Your task to perform on an android device: move an email to a new category in the gmail app Image 0: 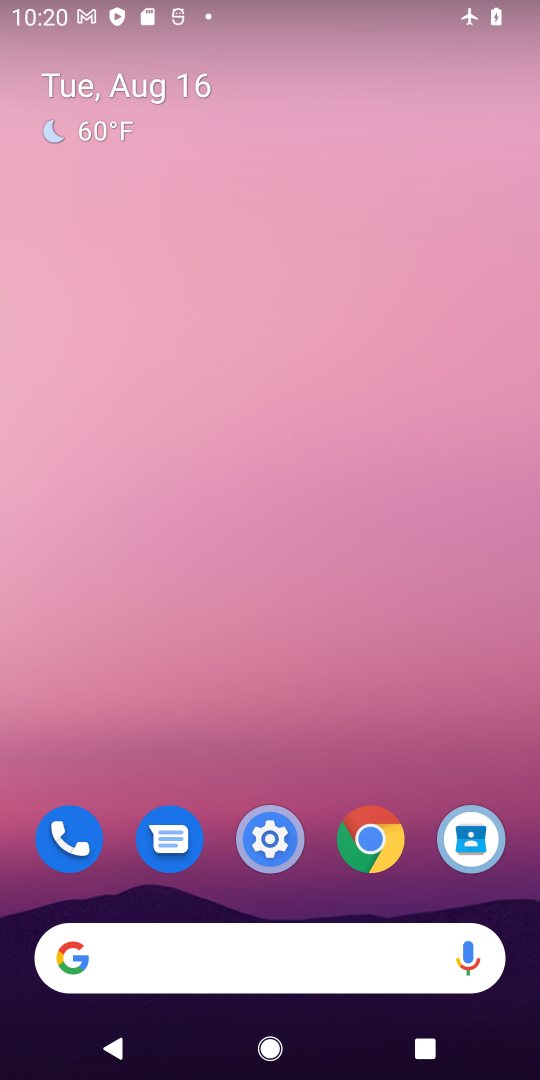
Step 0: drag from (215, 858) to (226, 237)
Your task to perform on an android device: move an email to a new category in the gmail app Image 1: 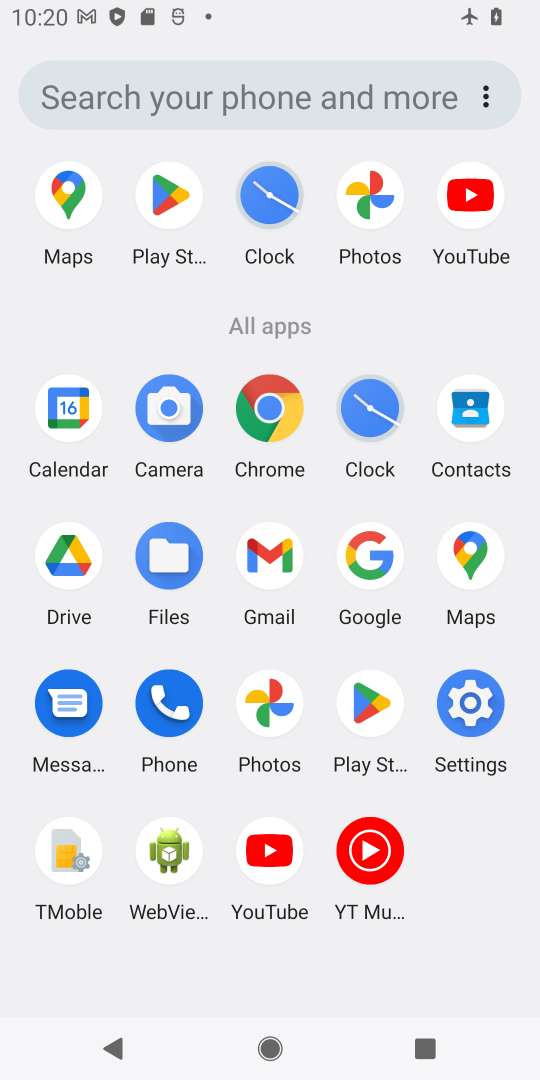
Step 1: click (271, 572)
Your task to perform on an android device: move an email to a new category in the gmail app Image 2: 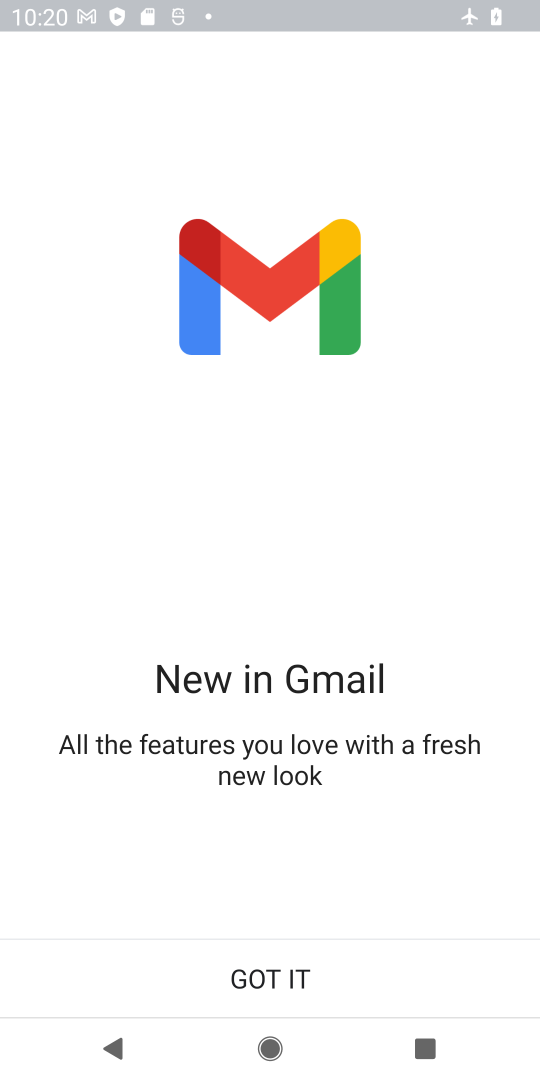
Step 2: click (340, 979)
Your task to perform on an android device: move an email to a new category in the gmail app Image 3: 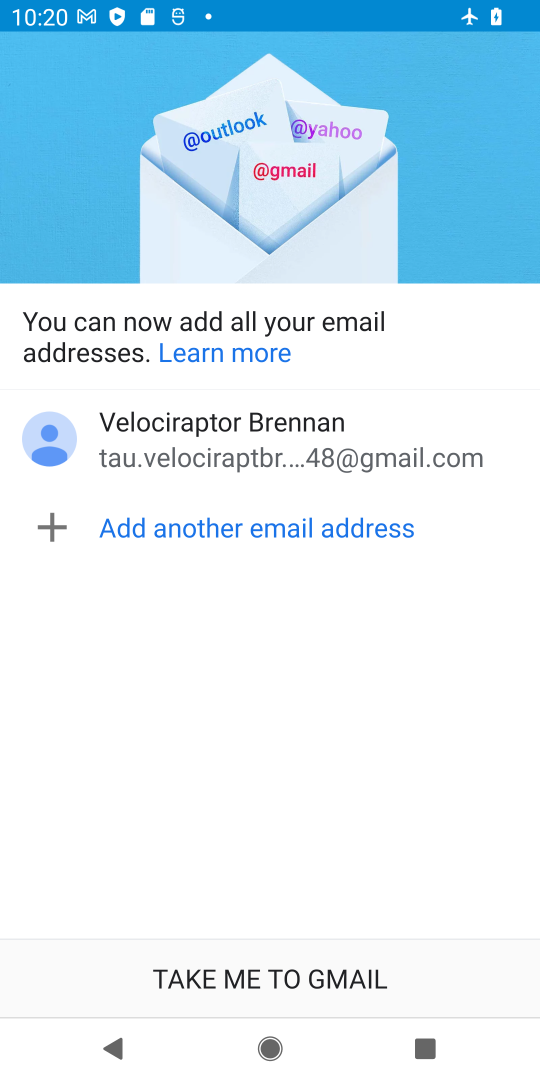
Step 3: click (344, 948)
Your task to perform on an android device: move an email to a new category in the gmail app Image 4: 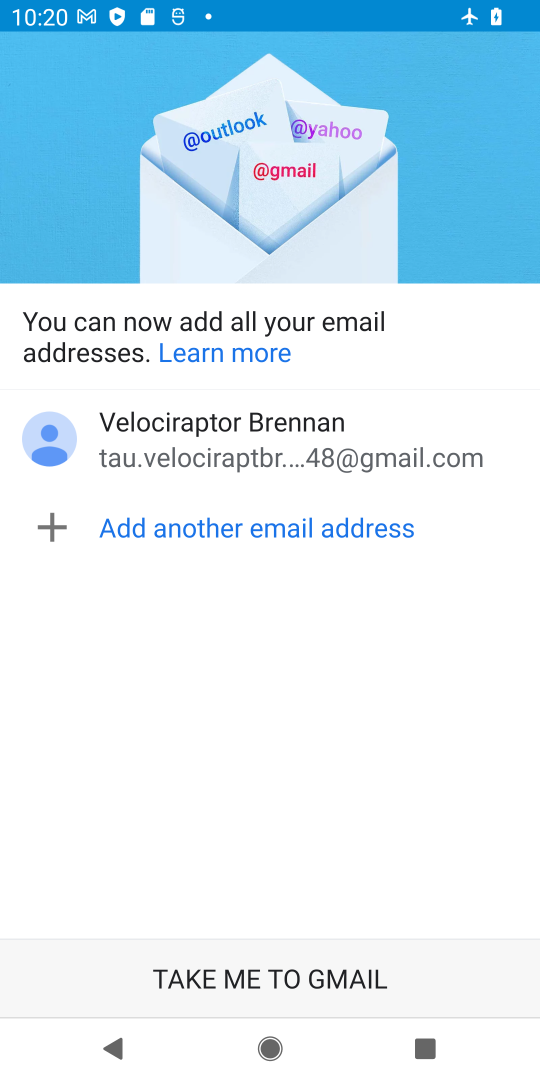
Step 4: click (312, 970)
Your task to perform on an android device: move an email to a new category in the gmail app Image 5: 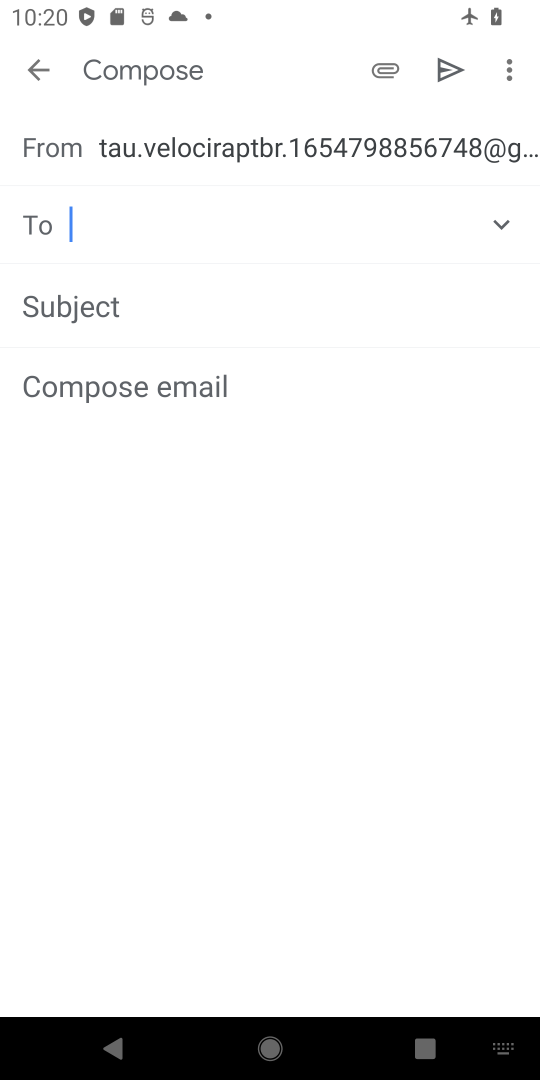
Step 5: click (29, 480)
Your task to perform on an android device: move an email to a new category in the gmail app Image 6: 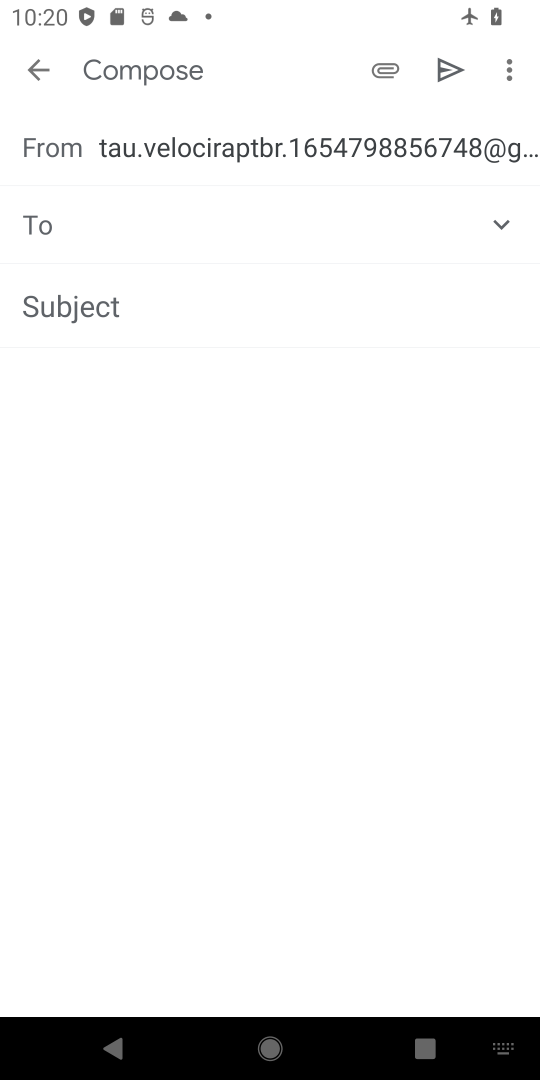
Step 6: click (24, 68)
Your task to perform on an android device: move an email to a new category in the gmail app Image 7: 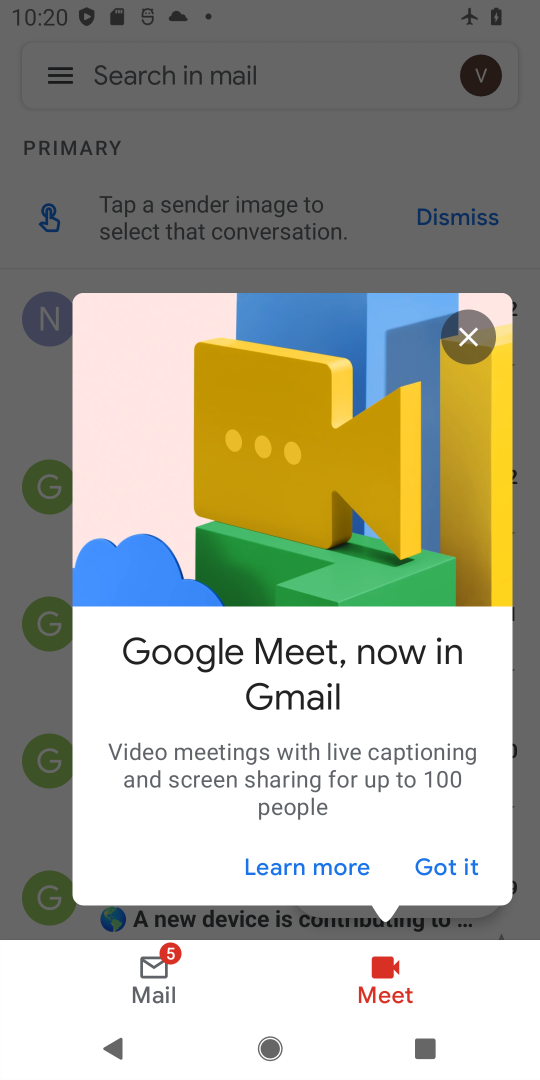
Step 7: click (468, 331)
Your task to perform on an android device: move an email to a new category in the gmail app Image 8: 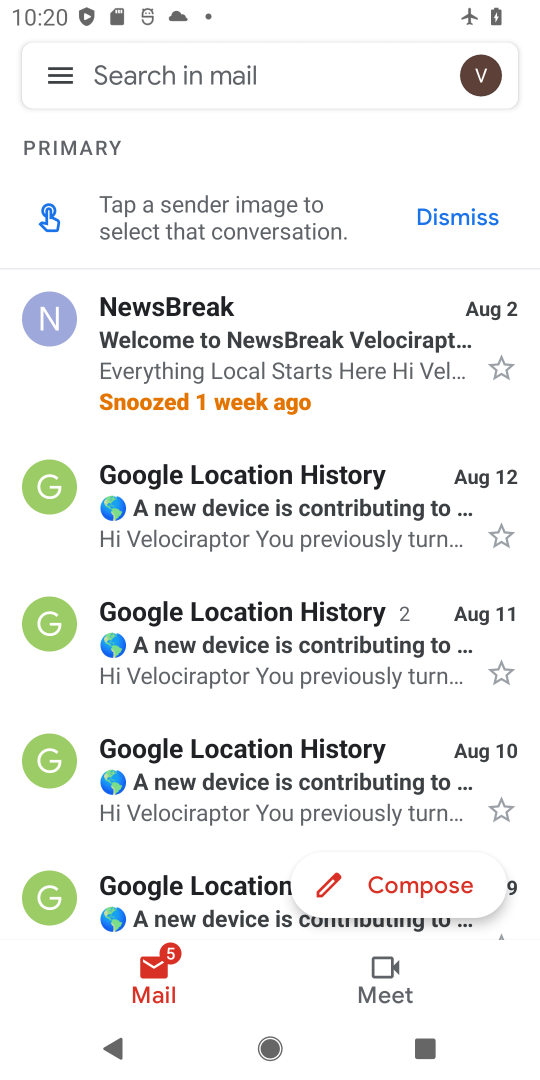
Step 8: click (51, 636)
Your task to perform on an android device: move an email to a new category in the gmail app Image 9: 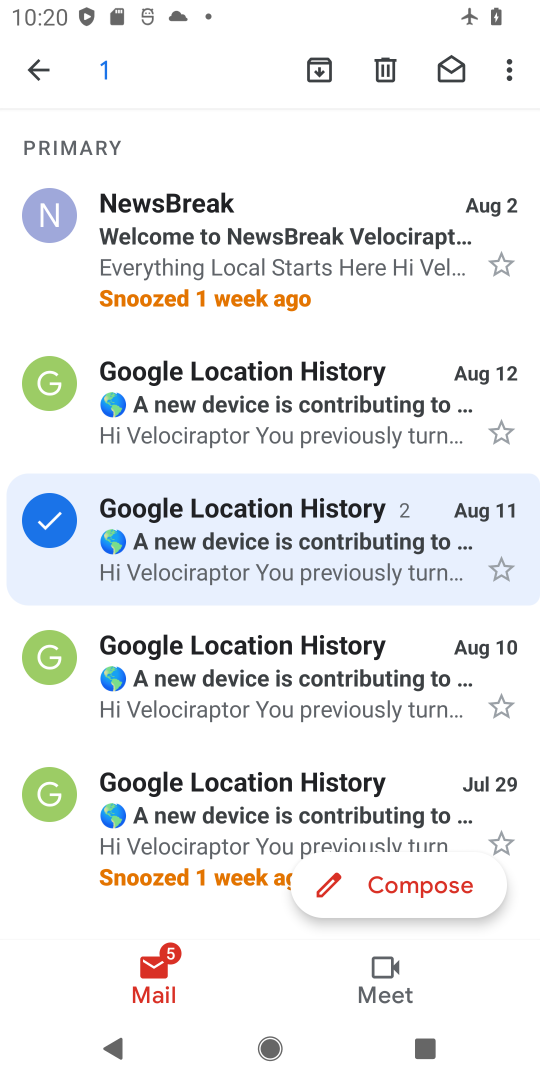
Step 9: click (512, 65)
Your task to perform on an android device: move an email to a new category in the gmail app Image 10: 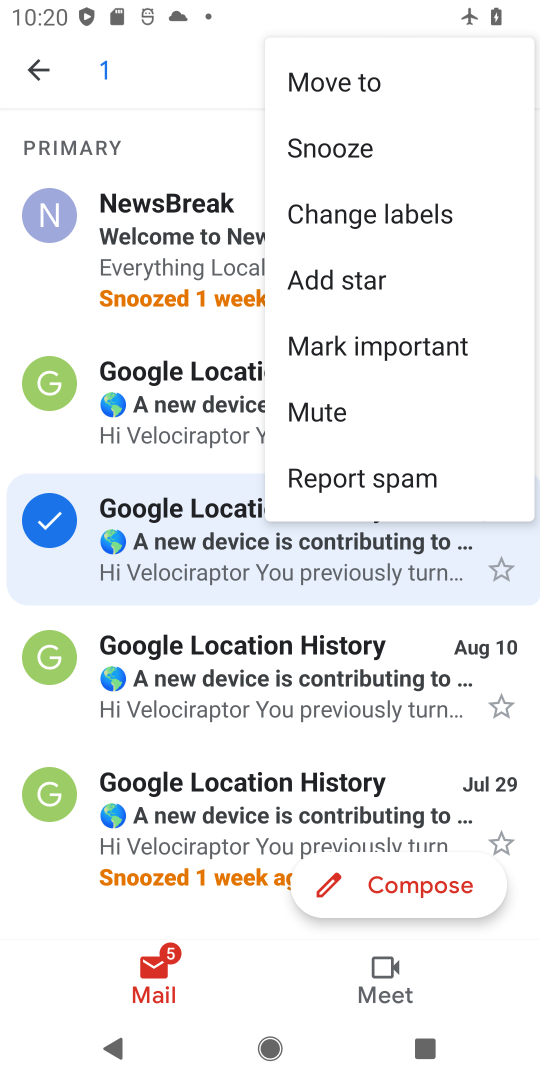
Step 10: click (423, 214)
Your task to perform on an android device: move an email to a new category in the gmail app Image 11: 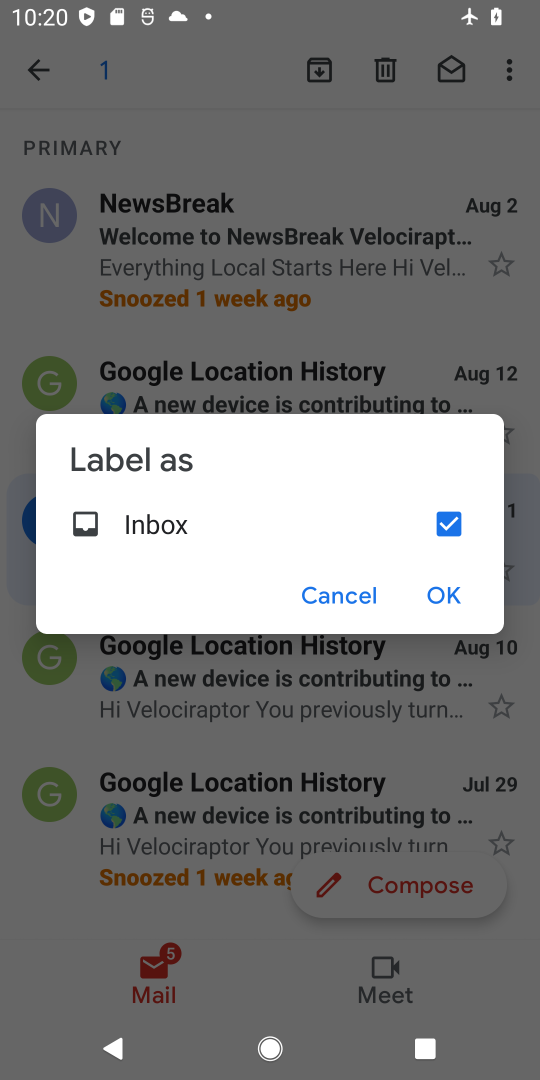
Step 11: click (445, 522)
Your task to perform on an android device: move an email to a new category in the gmail app Image 12: 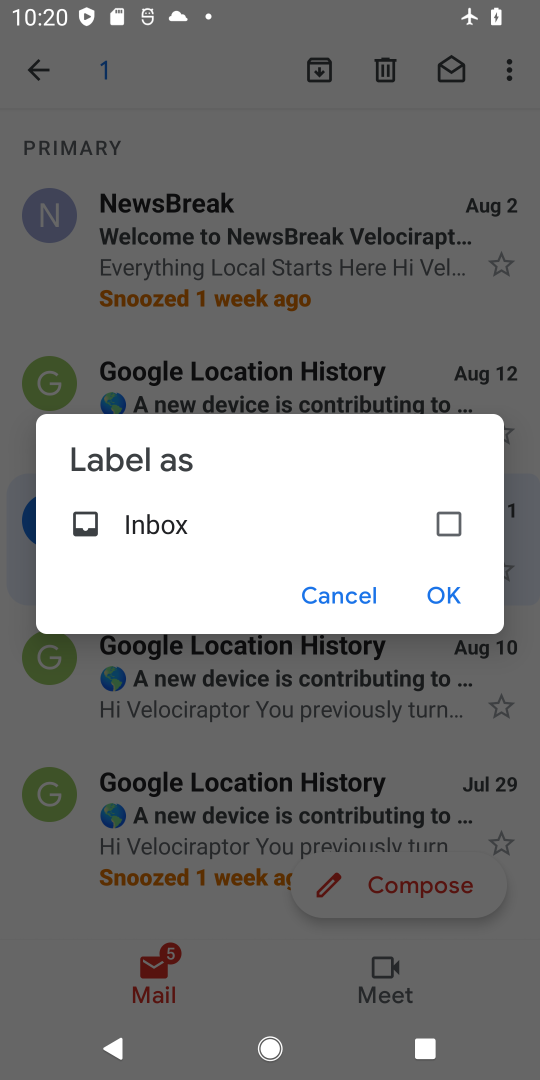
Step 12: click (437, 593)
Your task to perform on an android device: move an email to a new category in the gmail app Image 13: 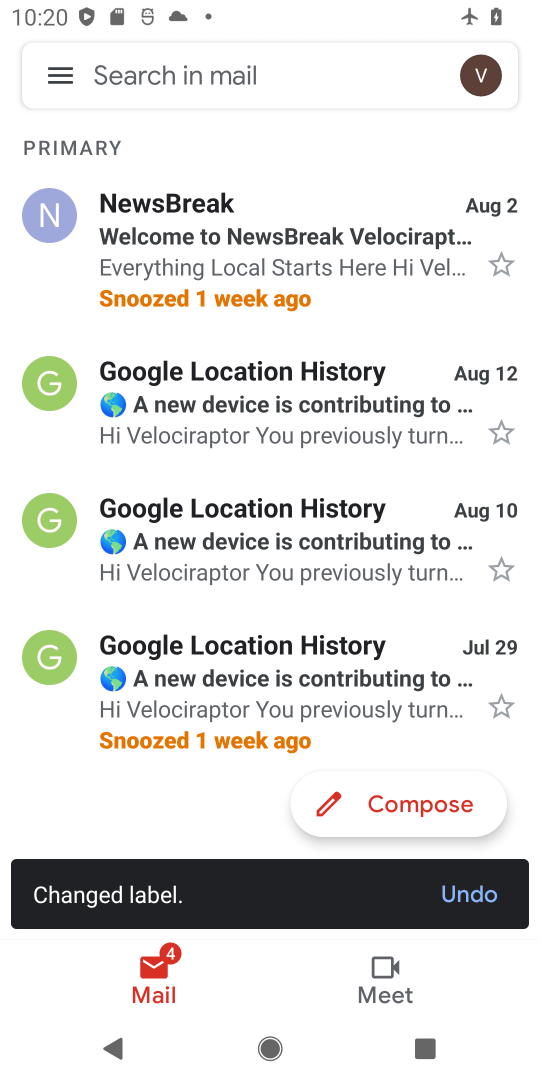
Step 13: task complete